Your task to perform on an android device: Go to CNN.com Image 0: 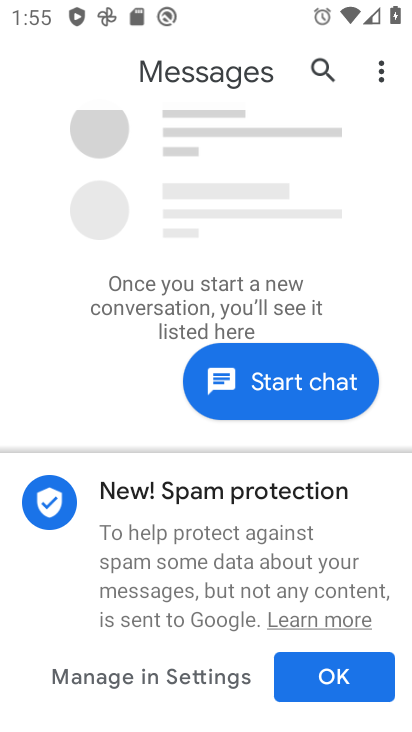
Step 0: press home button
Your task to perform on an android device: Go to CNN.com Image 1: 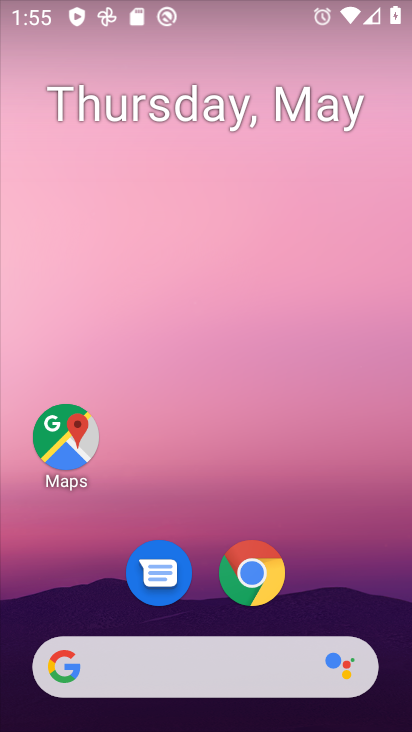
Step 1: click (254, 573)
Your task to perform on an android device: Go to CNN.com Image 2: 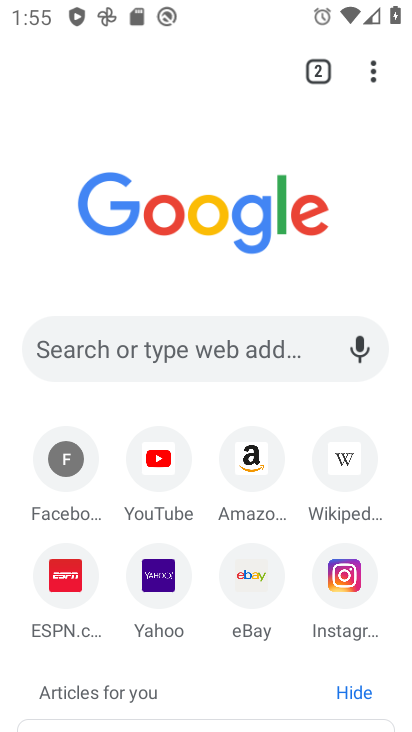
Step 2: click (183, 361)
Your task to perform on an android device: Go to CNN.com Image 3: 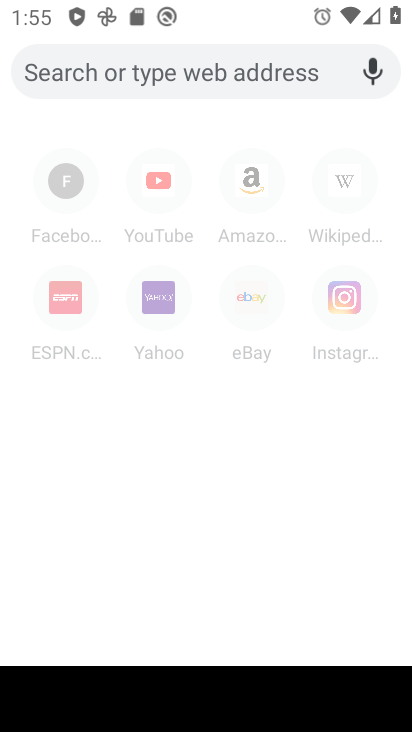
Step 3: click (110, 70)
Your task to perform on an android device: Go to CNN.com Image 4: 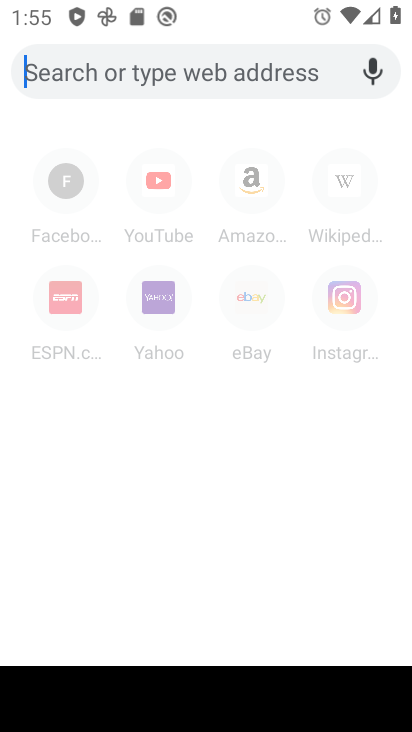
Step 4: click (110, 71)
Your task to perform on an android device: Go to CNN.com Image 5: 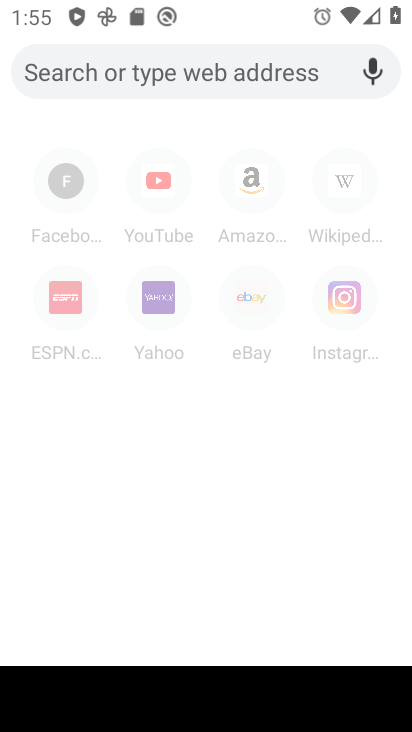
Step 5: click (79, 69)
Your task to perform on an android device: Go to CNN.com Image 6: 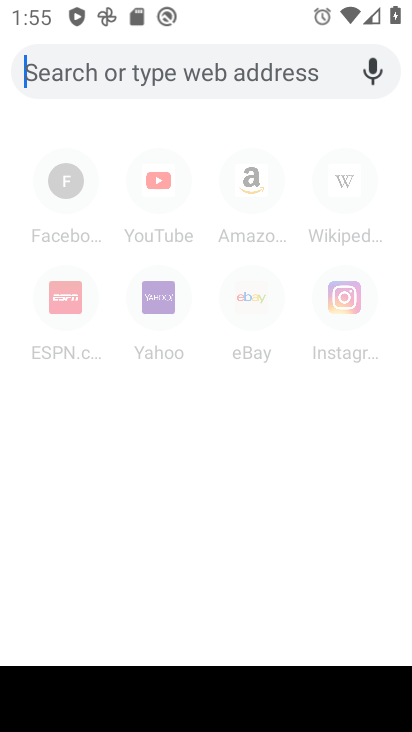
Step 6: click (79, 69)
Your task to perform on an android device: Go to CNN.com Image 7: 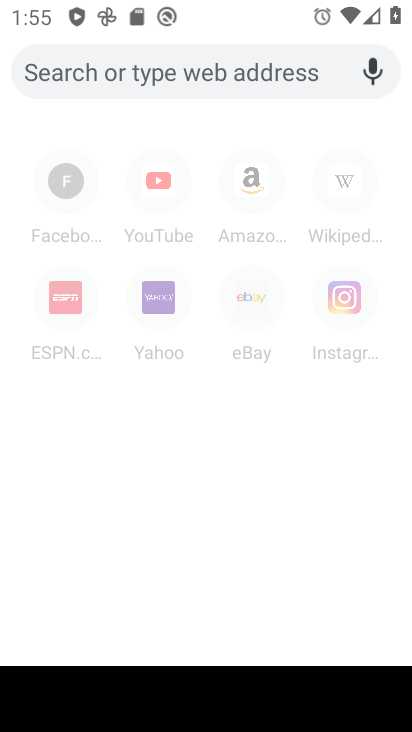
Step 7: click (106, 72)
Your task to perform on an android device: Go to CNN.com Image 8: 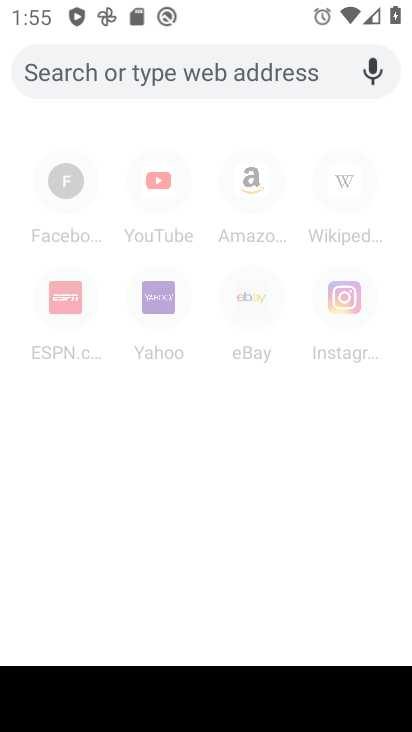
Step 8: click (67, 76)
Your task to perform on an android device: Go to CNN.com Image 9: 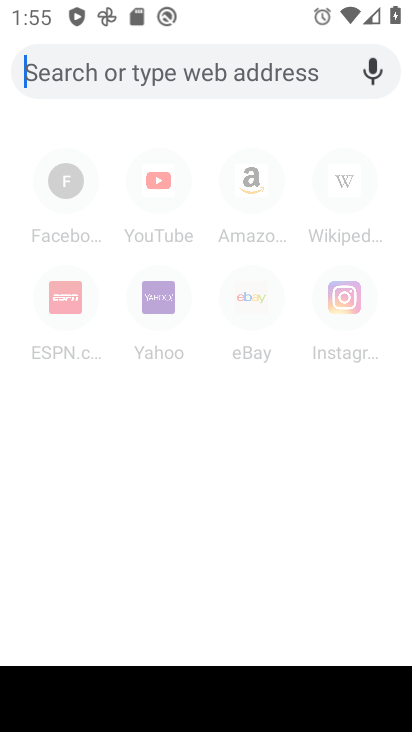
Step 9: click (67, 76)
Your task to perform on an android device: Go to CNN.com Image 10: 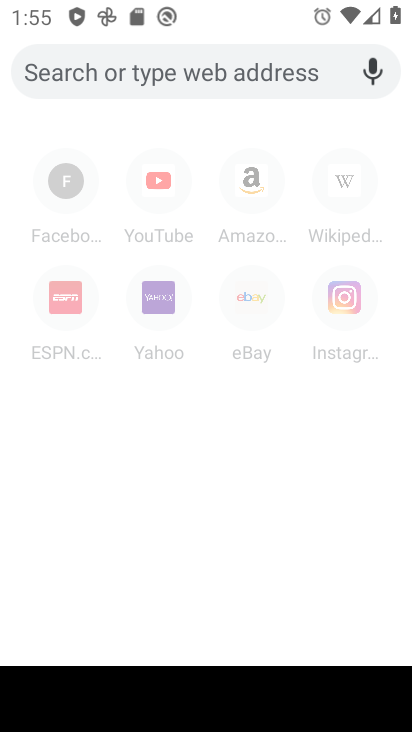
Step 10: click (62, 74)
Your task to perform on an android device: Go to CNN.com Image 11: 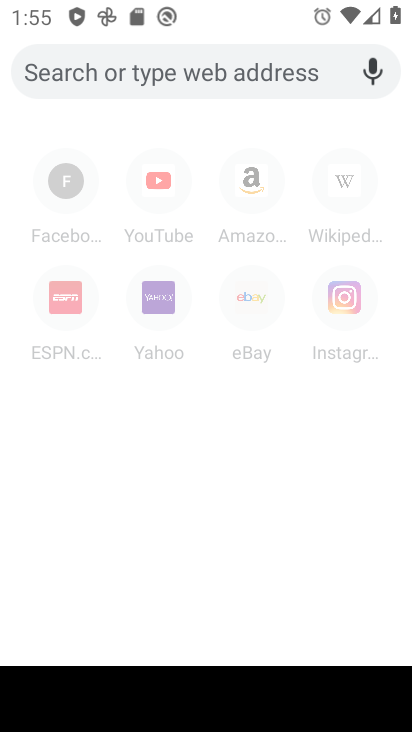
Step 11: type "CNN.com"
Your task to perform on an android device: Go to CNN.com Image 12: 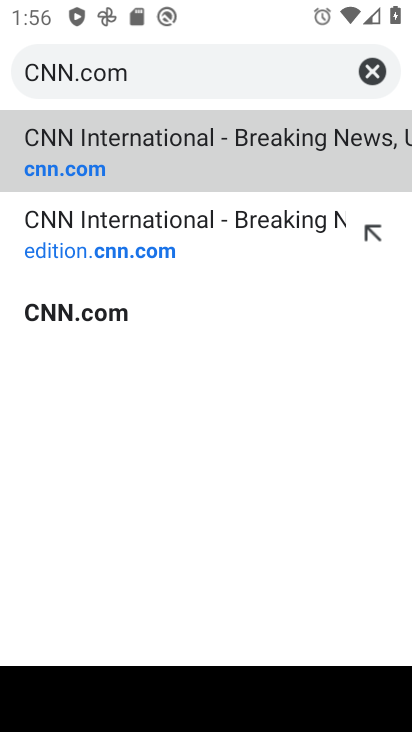
Step 12: click (69, 301)
Your task to perform on an android device: Go to CNN.com Image 13: 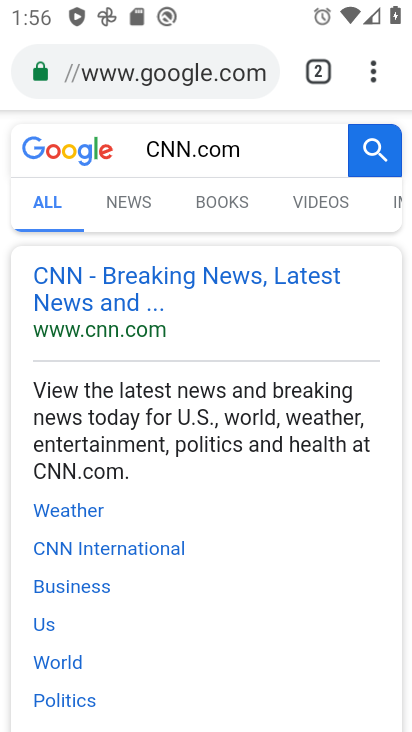
Step 13: task complete